Your task to perform on an android device: What's the weather today? Image 0: 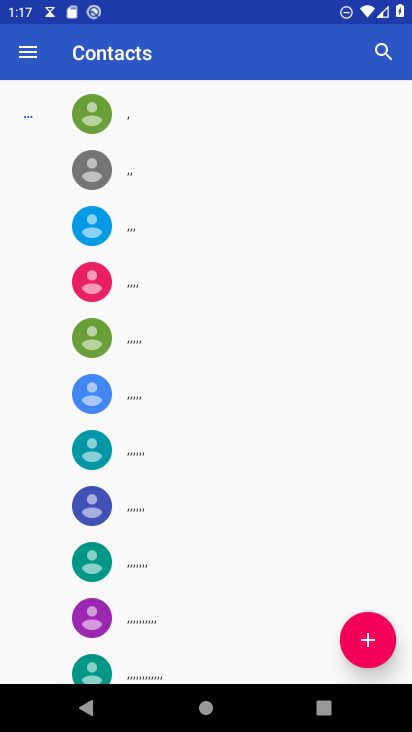
Step 0: press home button
Your task to perform on an android device: What's the weather today? Image 1: 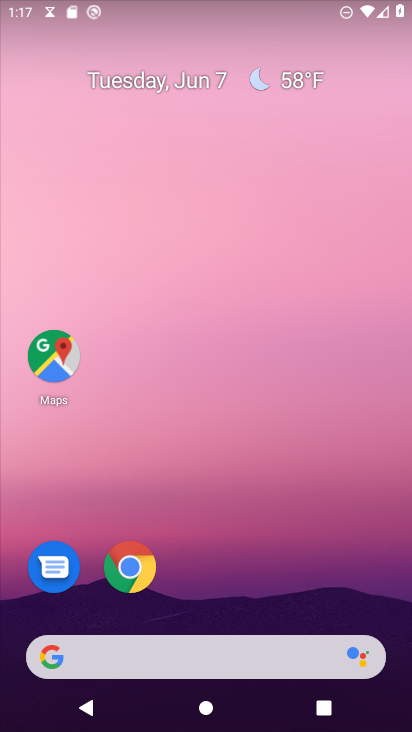
Step 1: click (298, 82)
Your task to perform on an android device: What's the weather today? Image 2: 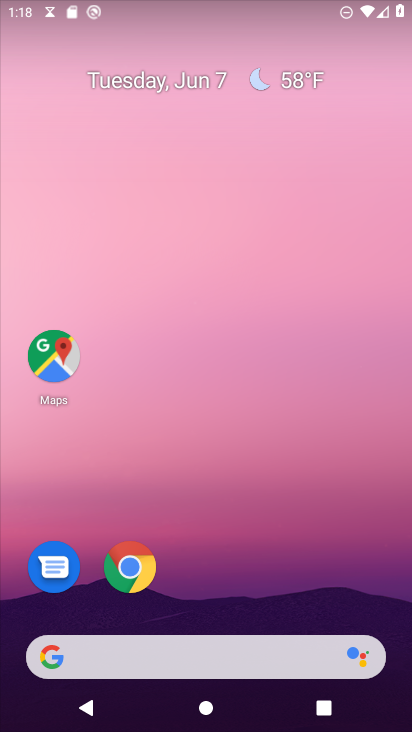
Step 2: drag from (408, 698) to (247, 86)
Your task to perform on an android device: What's the weather today? Image 3: 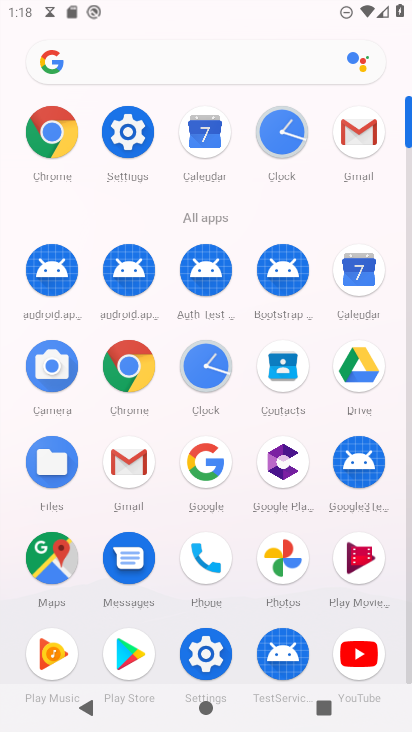
Step 3: click (208, 468)
Your task to perform on an android device: What's the weather today? Image 4: 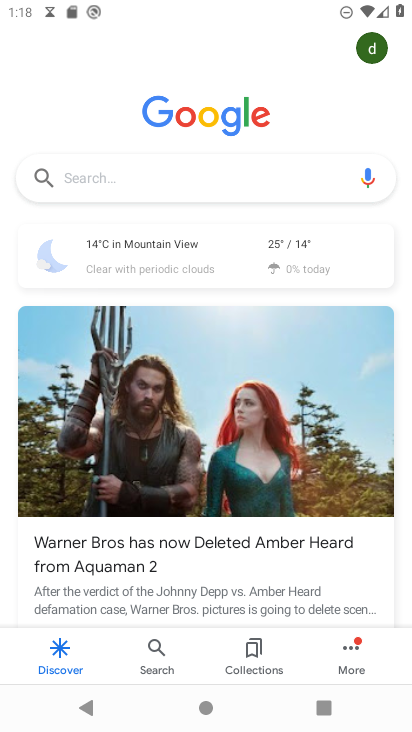
Step 4: click (271, 244)
Your task to perform on an android device: What's the weather today? Image 5: 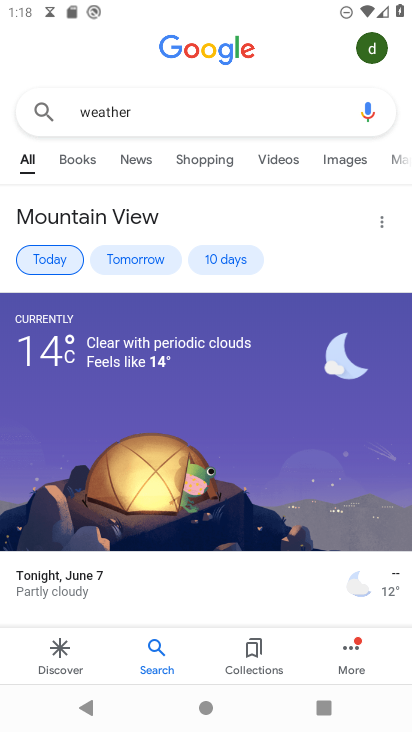
Step 5: click (38, 258)
Your task to perform on an android device: What's the weather today? Image 6: 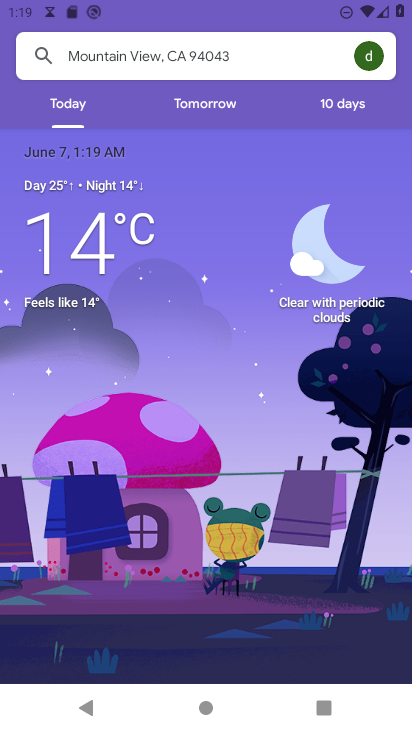
Step 6: task complete